Your task to perform on an android device: Search for Italian restaurants on Maps Image 0: 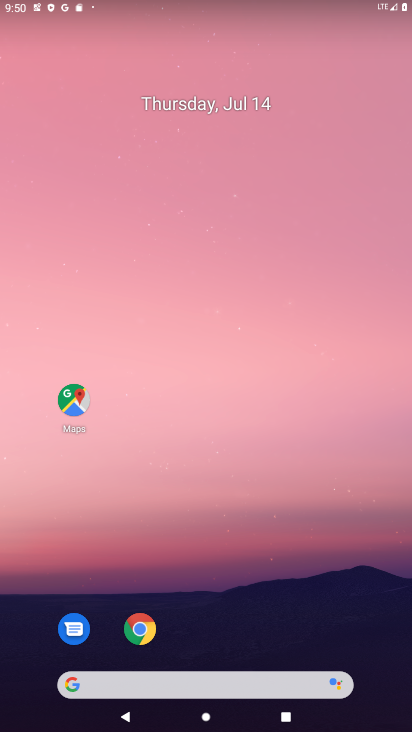
Step 0: click (57, 405)
Your task to perform on an android device: Search for Italian restaurants on Maps Image 1: 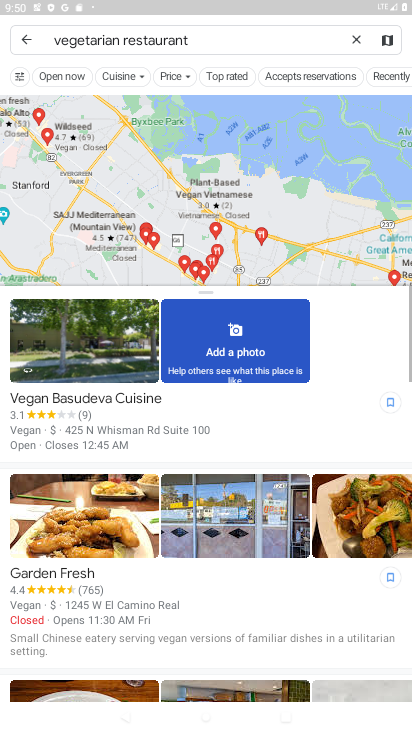
Step 1: click (353, 42)
Your task to perform on an android device: Search for Italian restaurants on Maps Image 2: 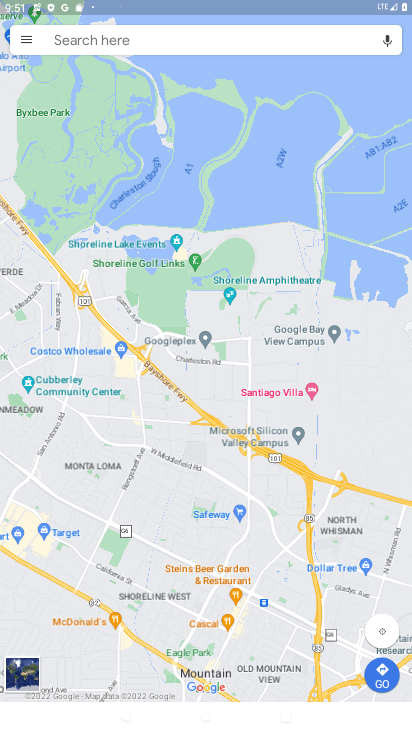
Step 2: click (174, 41)
Your task to perform on an android device: Search for Italian restaurants on Maps Image 3: 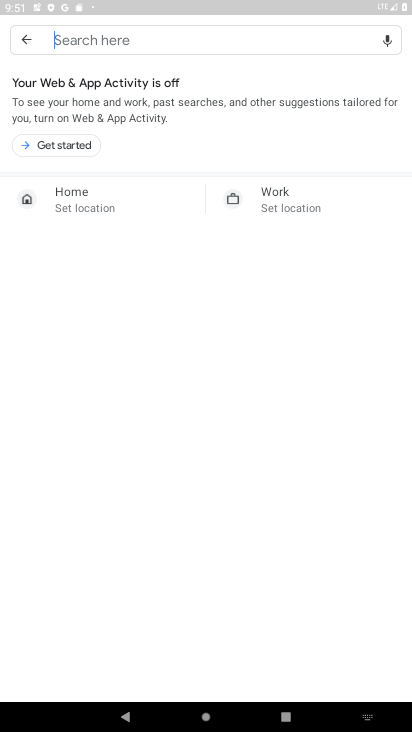
Step 3: type "Italian restaurants"
Your task to perform on an android device: Search for Italian restaurants on Maps Image 4: 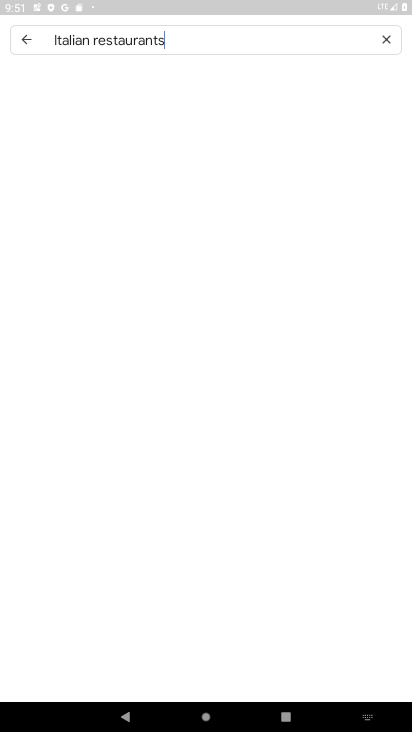
Step 4: type ""
Your task to perform on an android device: Search for Italian restaurants on Maps Image 5: 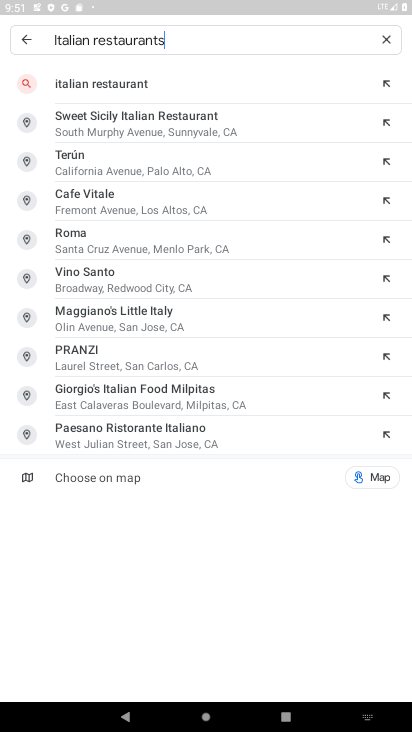
Step 5: click (153, 88)
Your task to perform on an android device: Search for Italian restaurants on Maps Image 6: 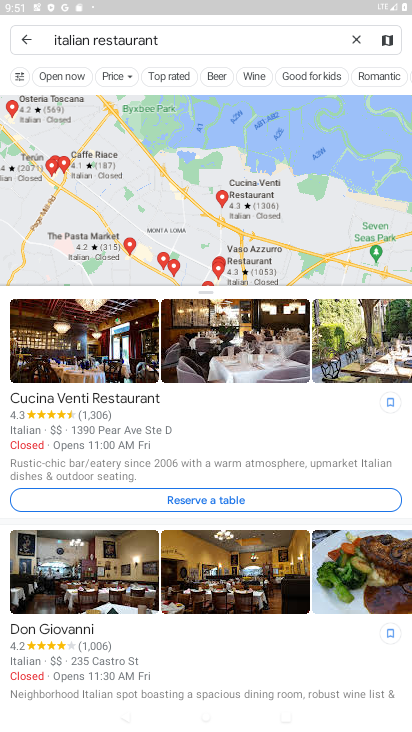
Step 6: task complete